Your task to perform on an android device: remove spam from my inbox in the gmail app Image 0: 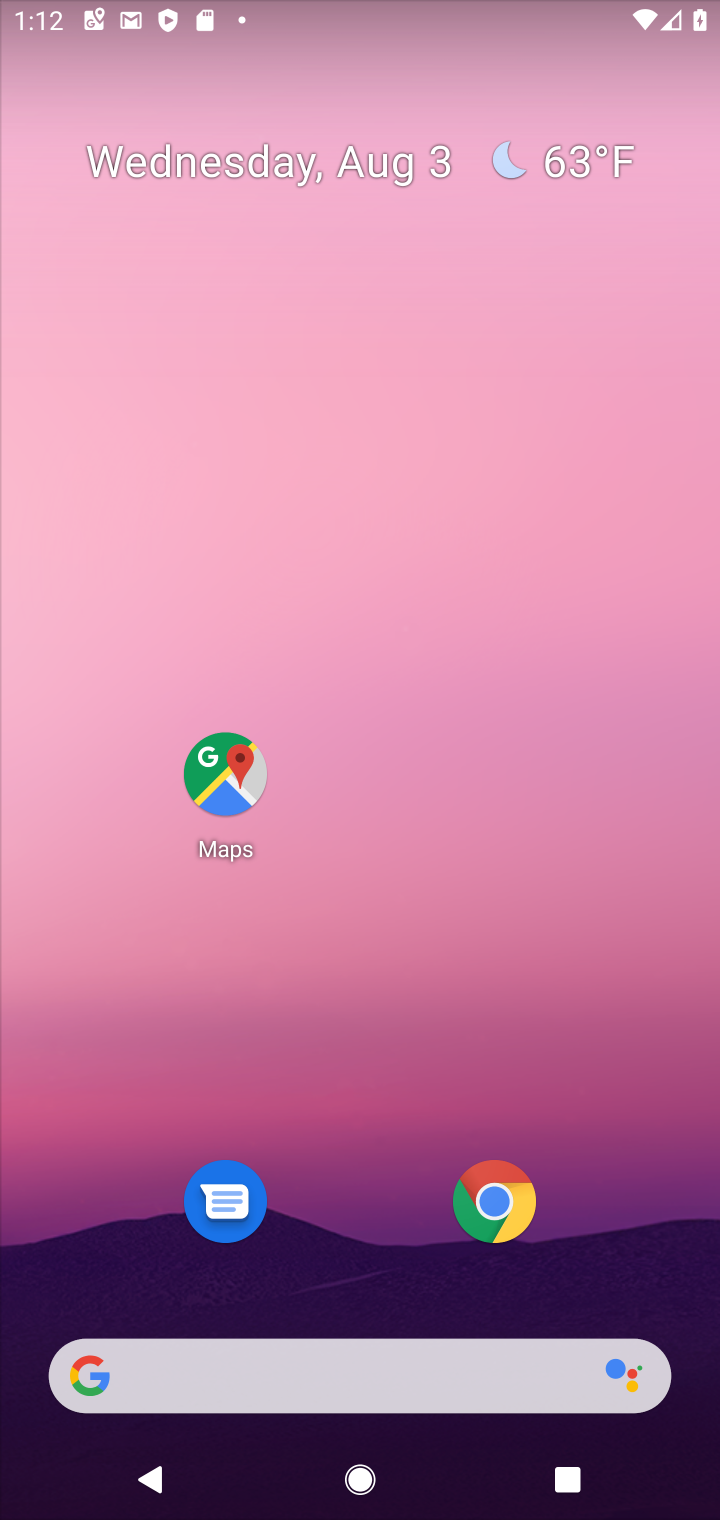
Step 0: press home button
Your task to perform on an android device: remove spam from my inbox in the gmail app Image 1: 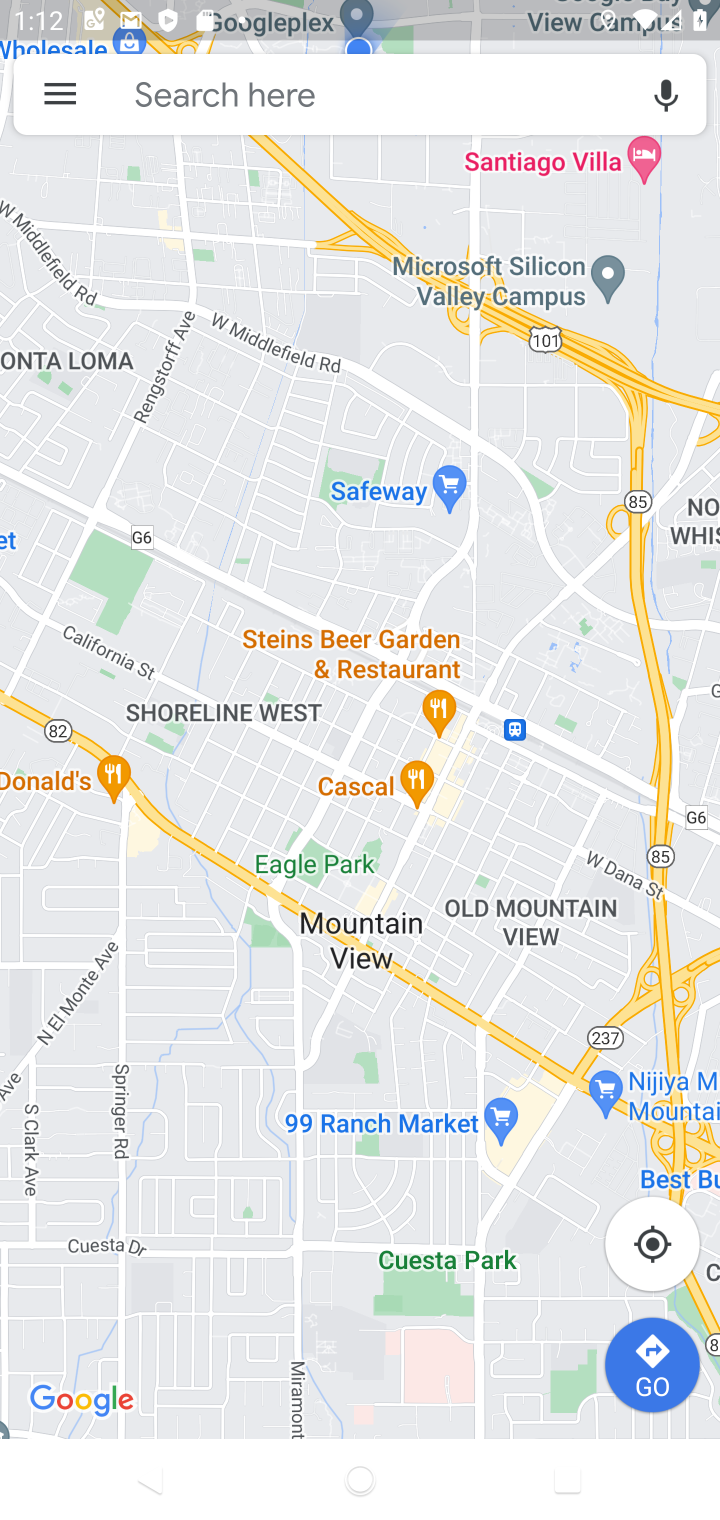
Step 1: click (498, 1193)
Your task to perform on an android device: remove spam from my inbox in the gmail app Image 2: 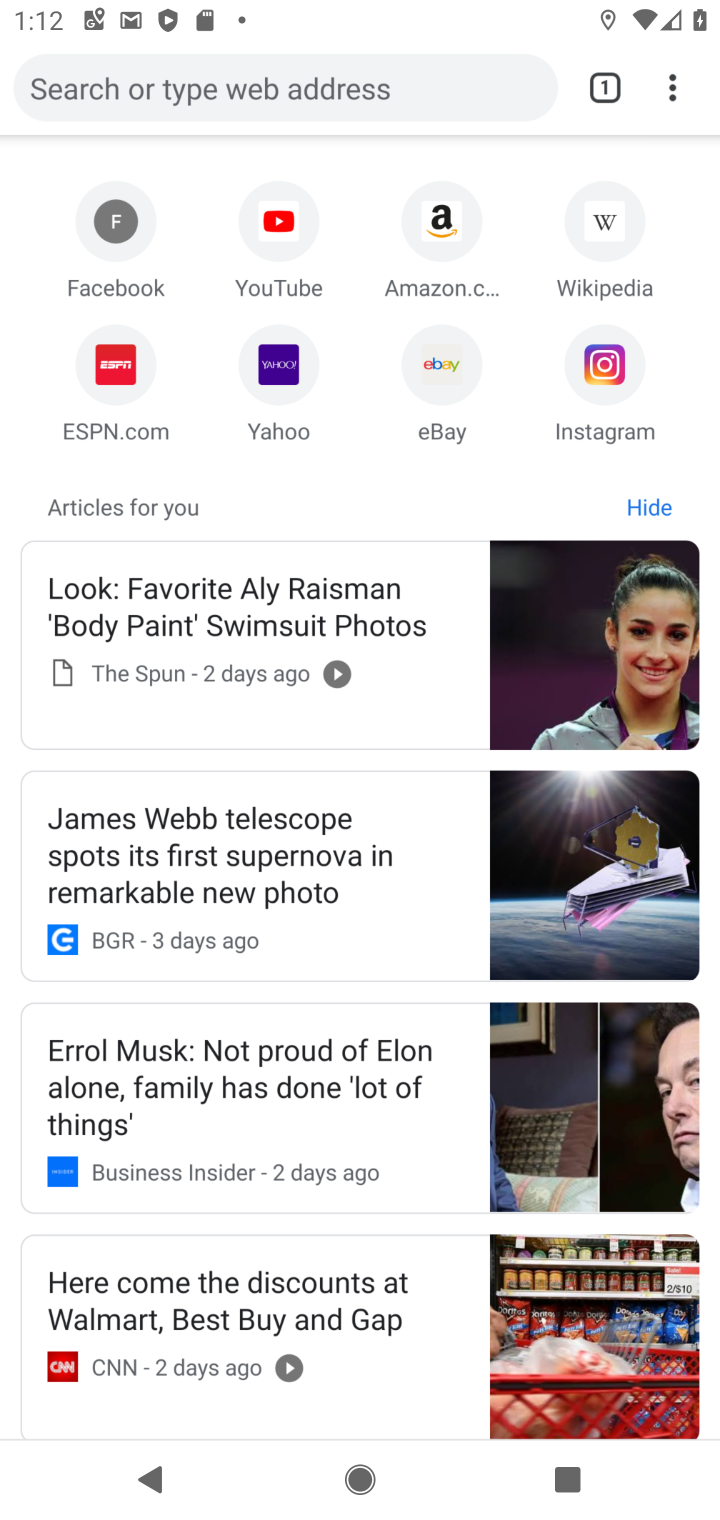
Step 2: click (496, 1212)
Your task to perform on an android device: remove spam from my inbox in the gmail app Image 3: 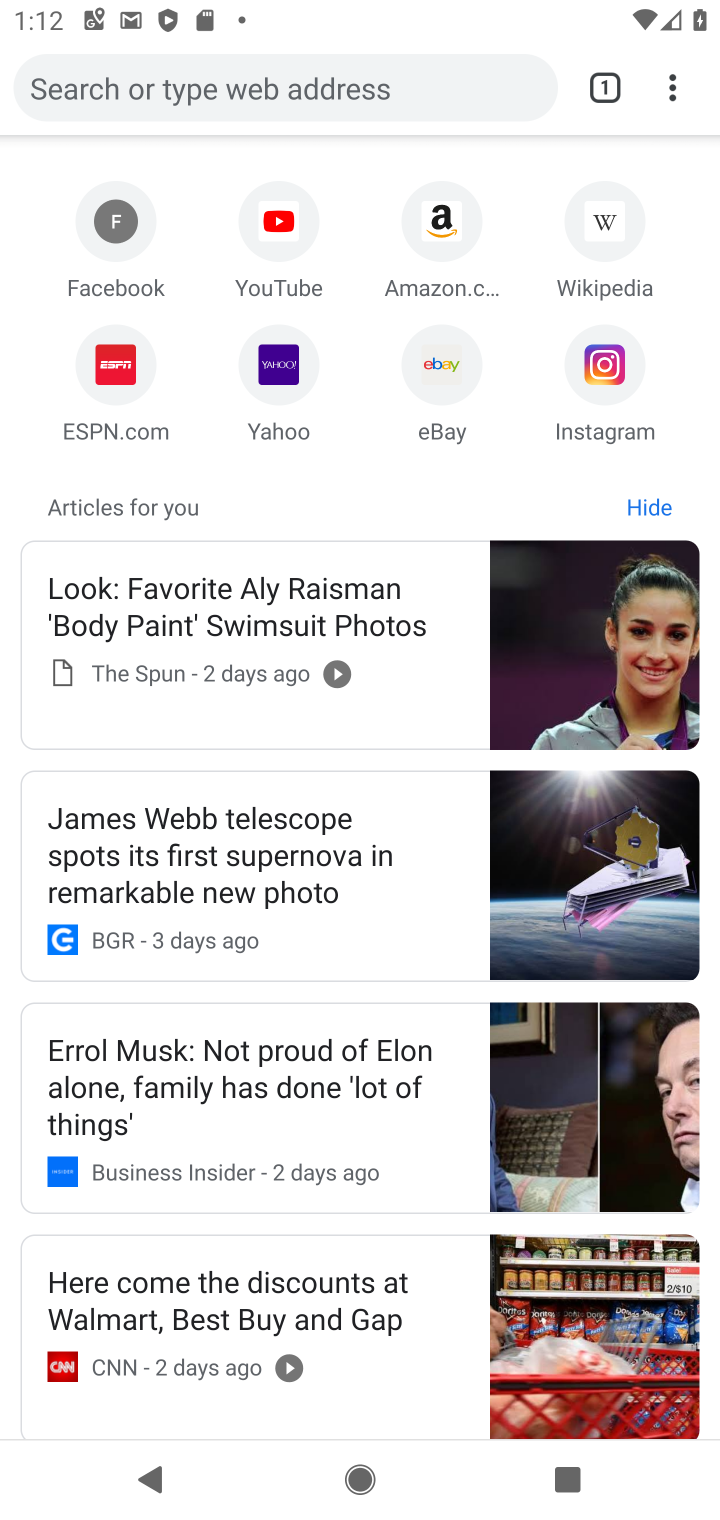
Step 3: press home button
Your task to perform on an android device: remove spam from my inbox in the gmail app Image 4: 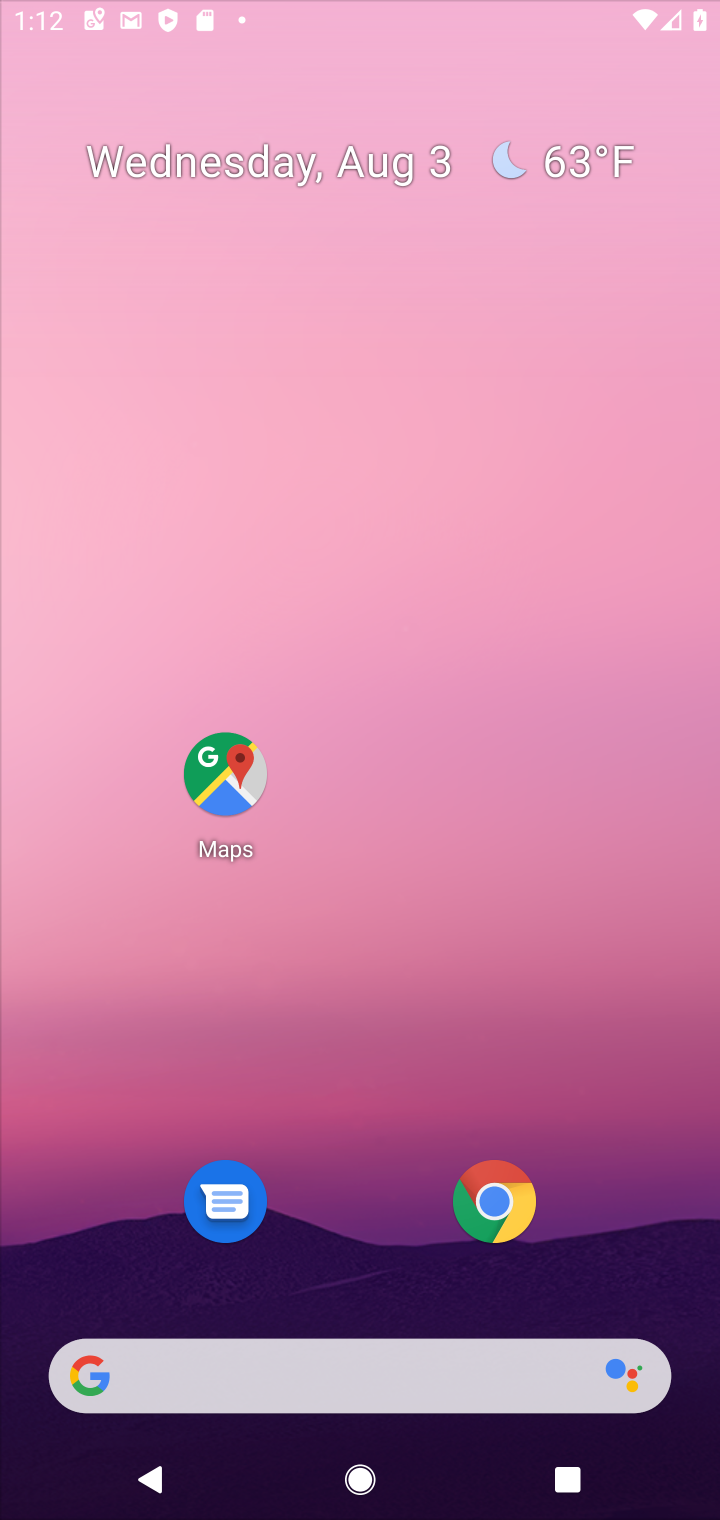
Step 4: press home button
Your task to perform on an android device: remove spam from my inbox in the gmail app Image 5: 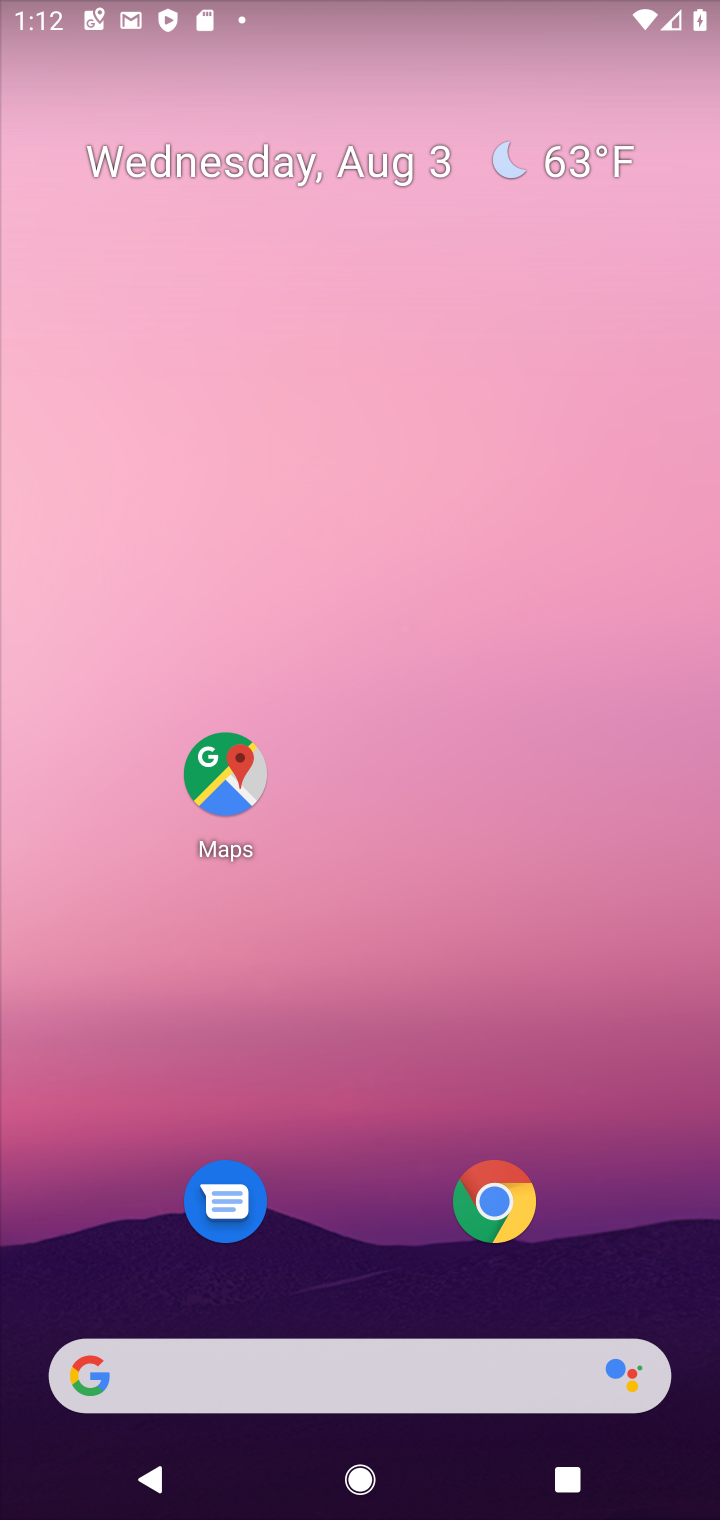
Step 5: drag from (382, 1277) to (645, 136)
Your task to perform on an android device: remove spam from my inbox in the gmail app Image 6: 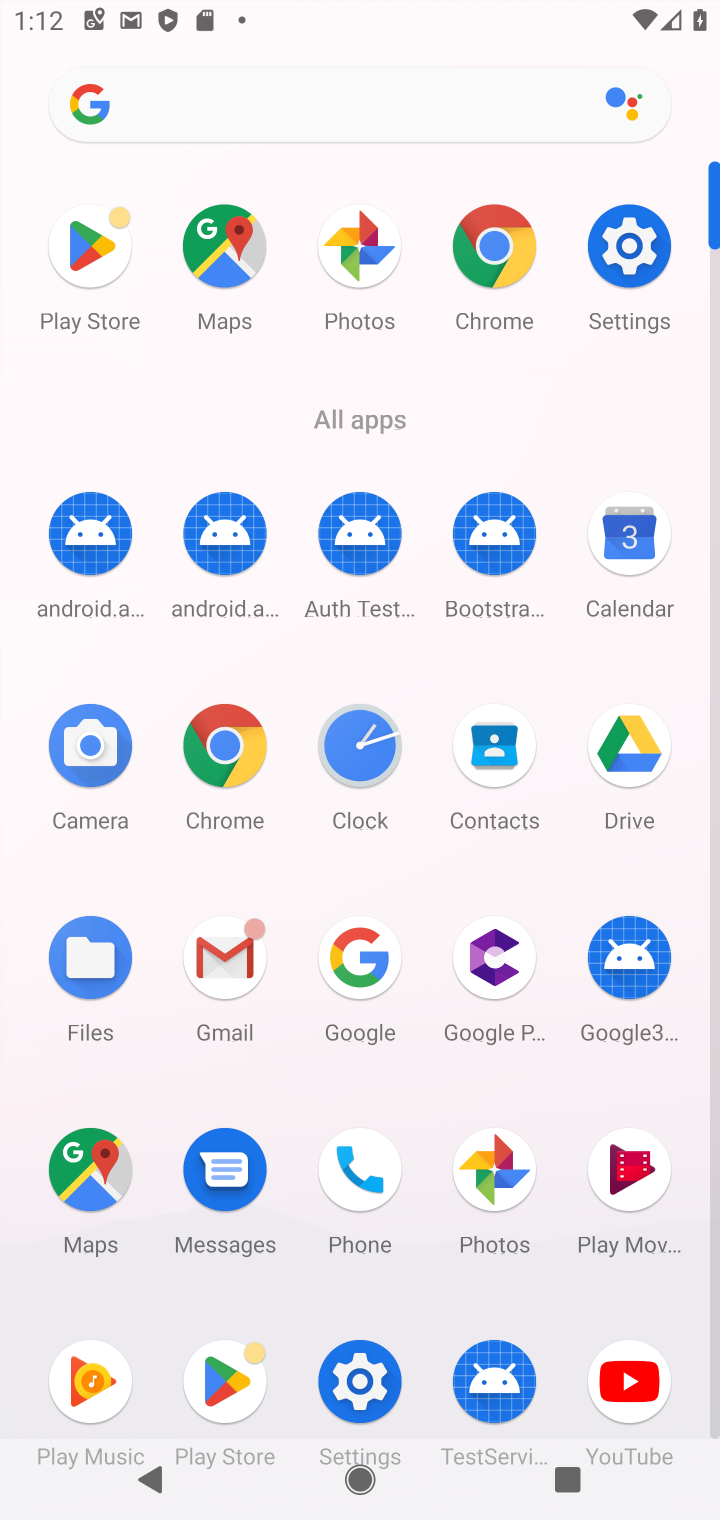
Step 6: click (226, 967)
Your task to perform on an android device: remove spam from my inbox in the gmail app Image 7: 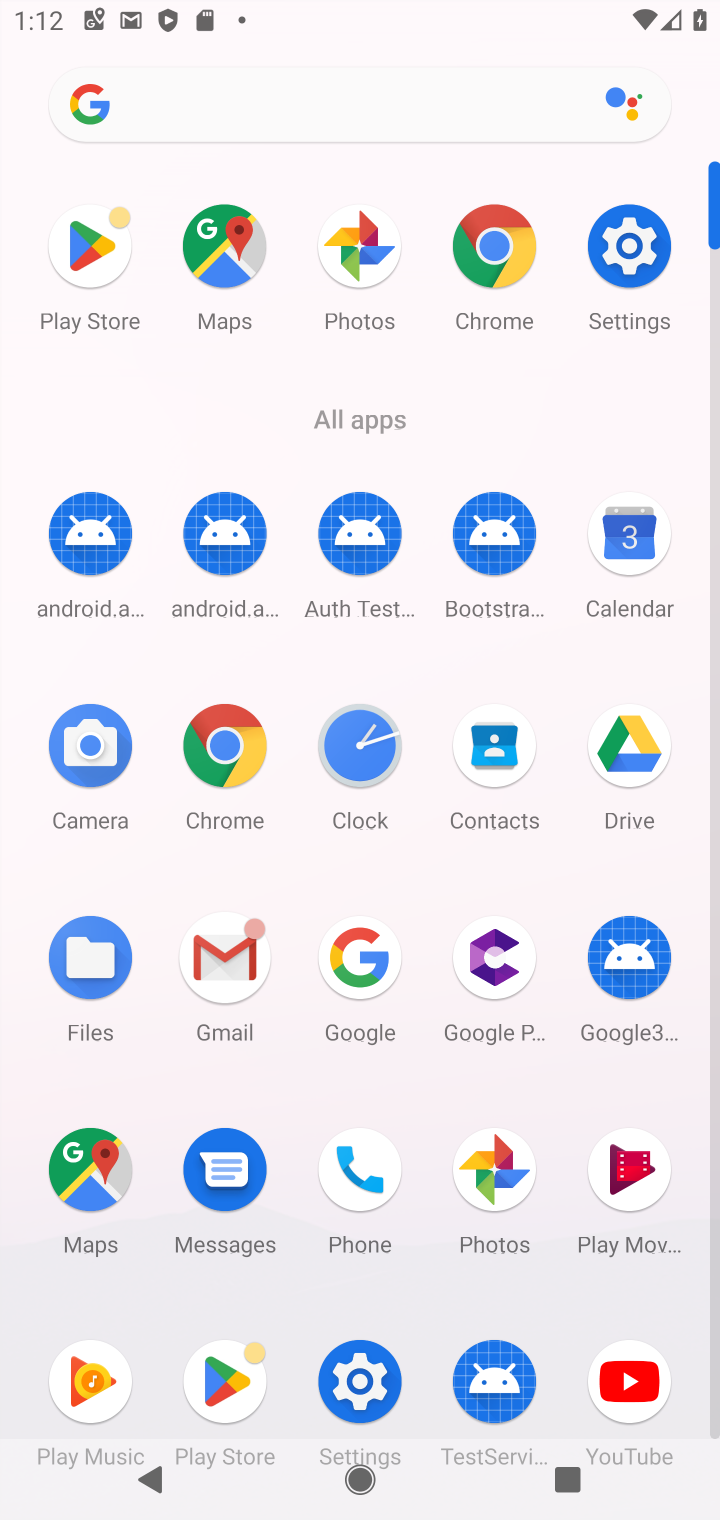
Step 7: click (226, 969)
Your task to perform on an android device: remove spam from my inbox in the gmail app Image 8: 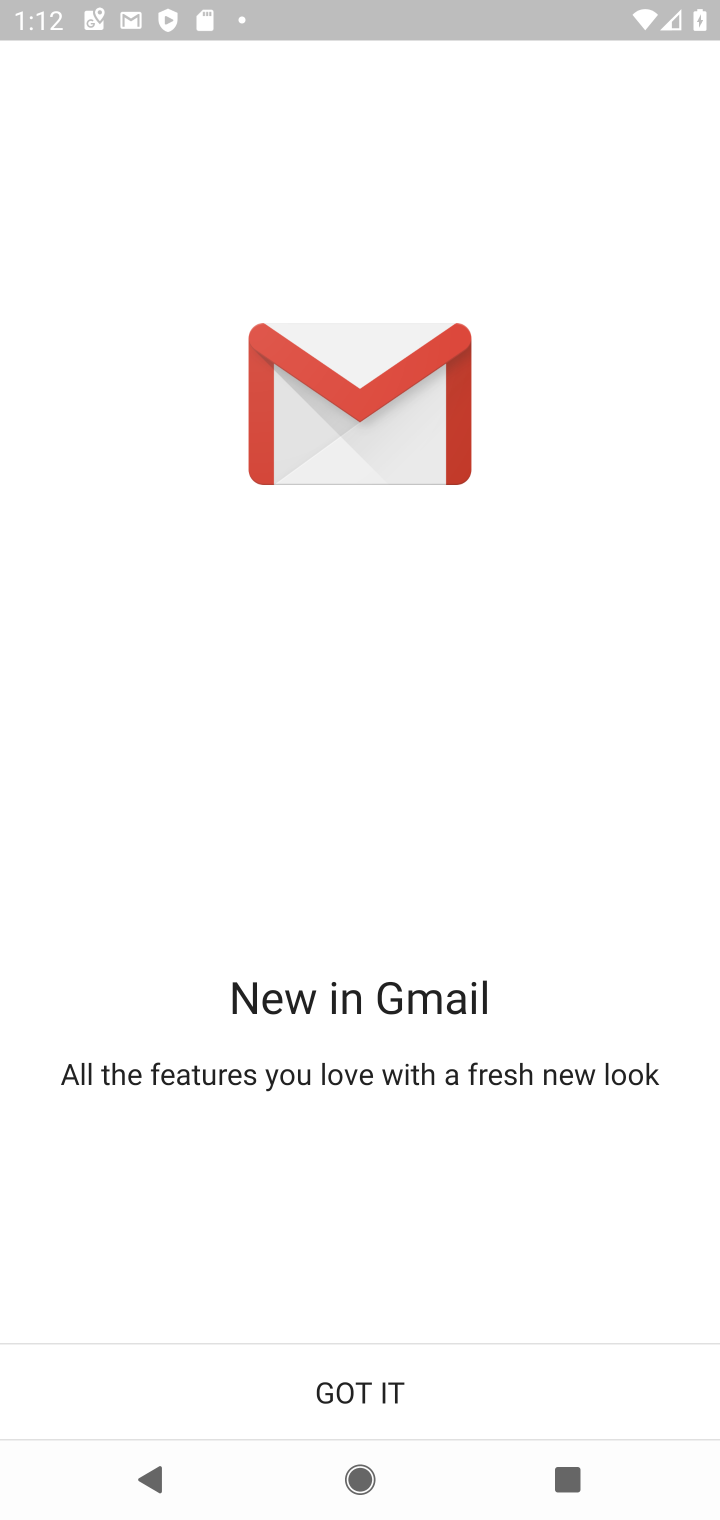
Step 8: click (379, 1392)
Your task to perform on an android device: remove spam from my inbox in the gmail app Image 9: 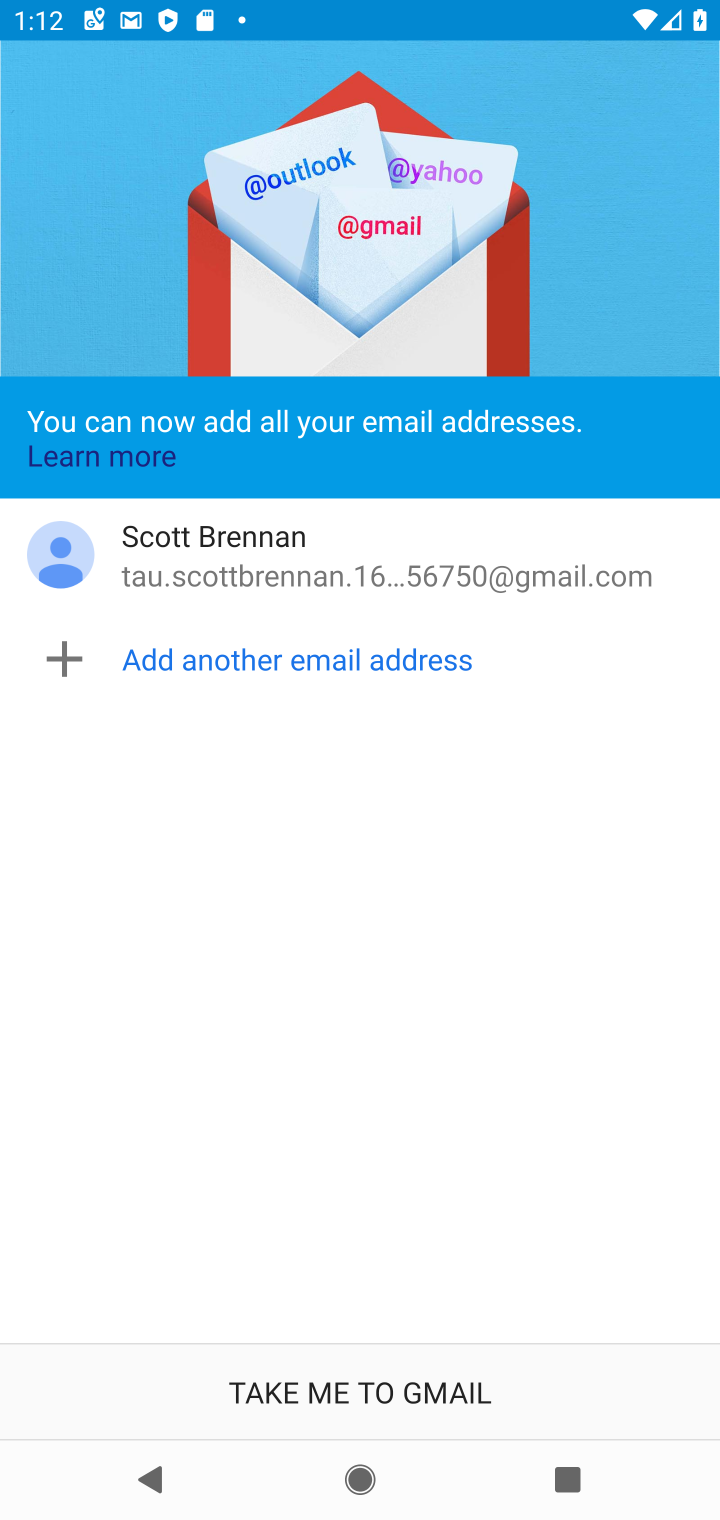
Step 9: click (399, 1377)
Your task to perform on an android device: remove spam from my inbox in the gmail app Image 10: 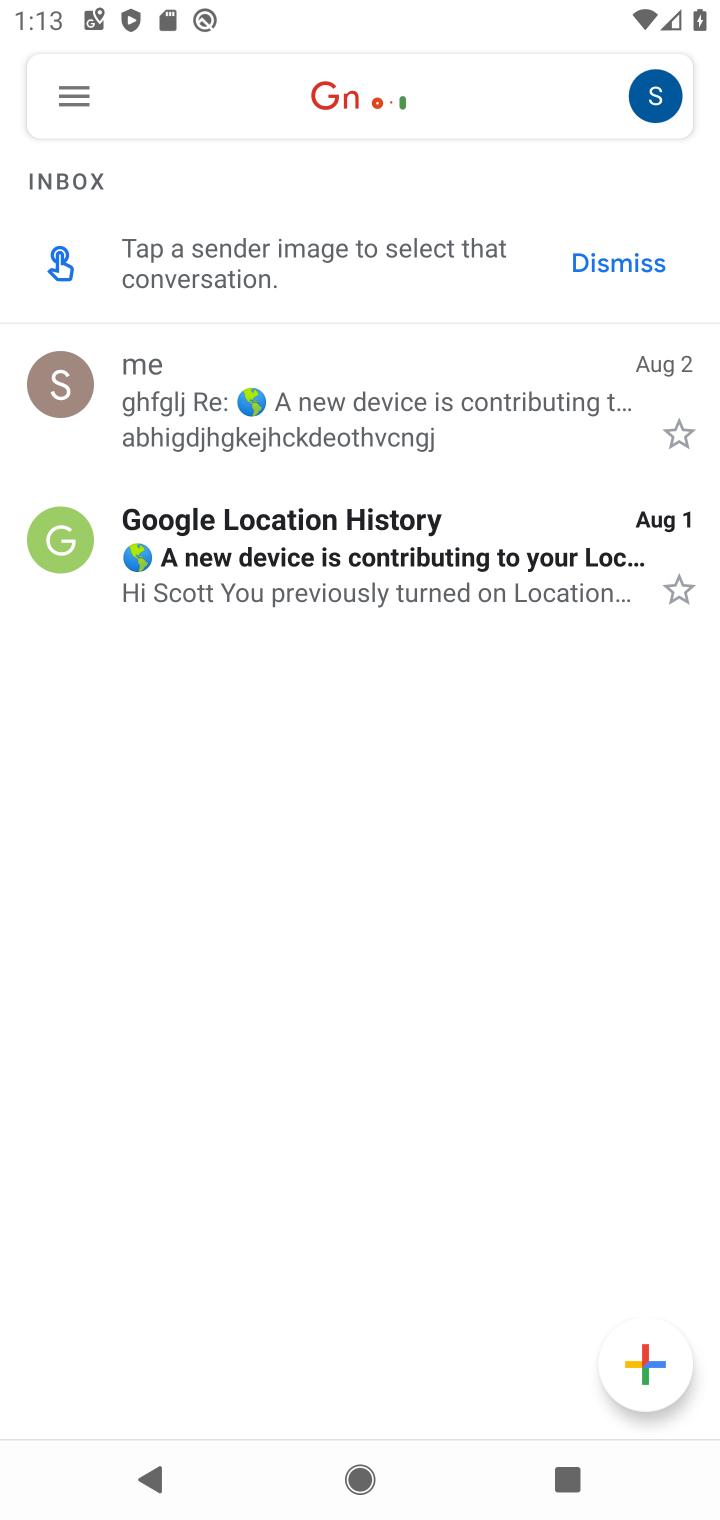
Step 10: click (66, 87)
Your task to perform on an android device: remove spam from my inbox in the gmail app Image 11: 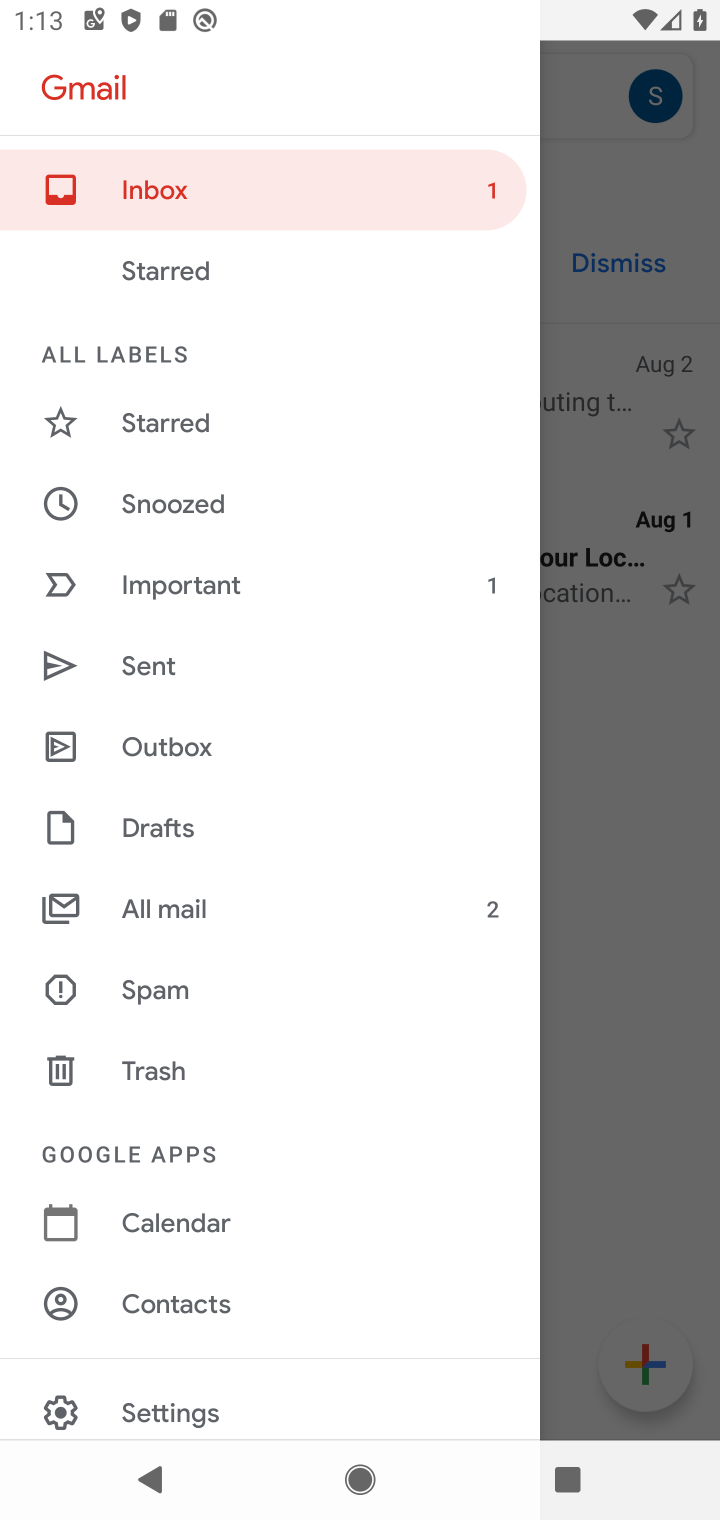
Step 11: click (150, 994)
Your task to perform on an android device: remove spam from my inbox in the gmail app Image 12: 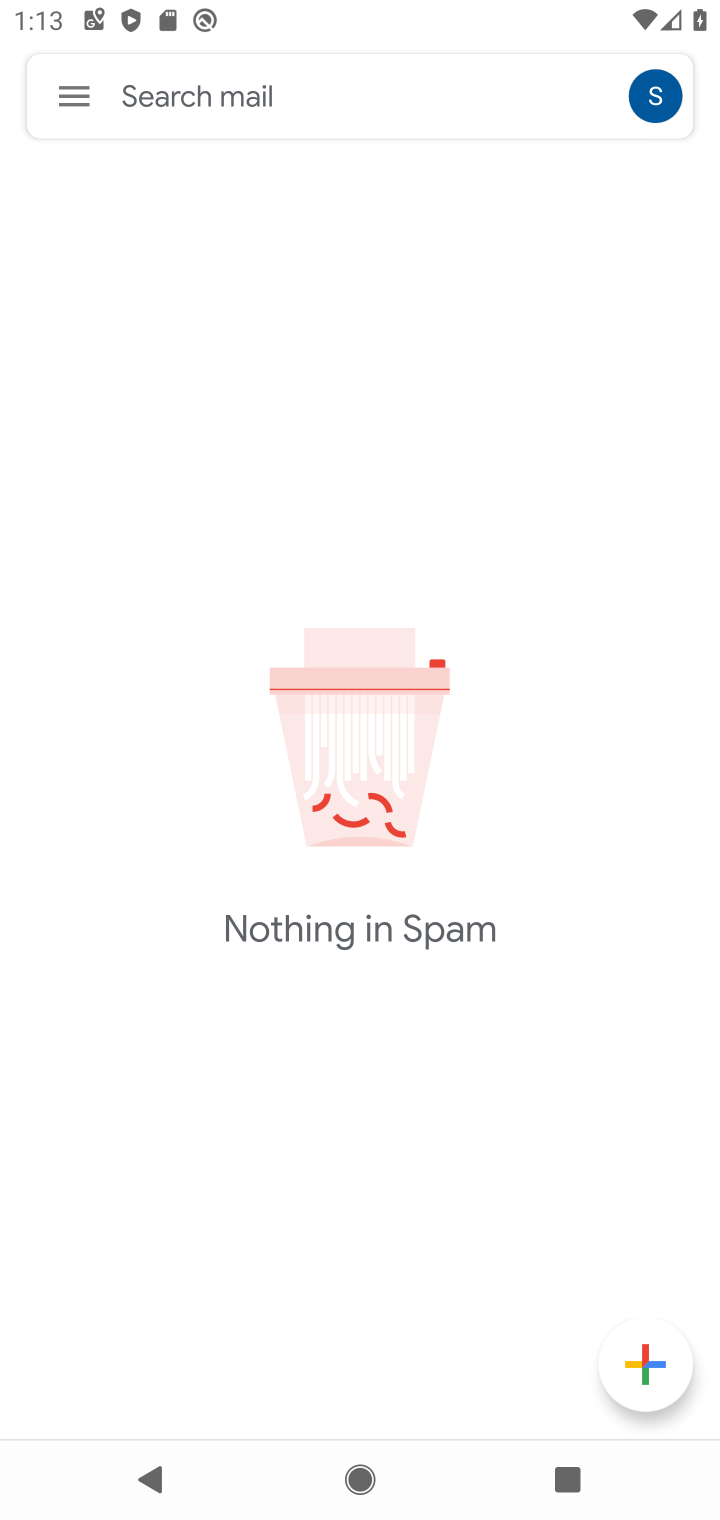
Step 12: task complete